Your task to perform on an android device: turn on priority inbox in the gmail app Image 0: 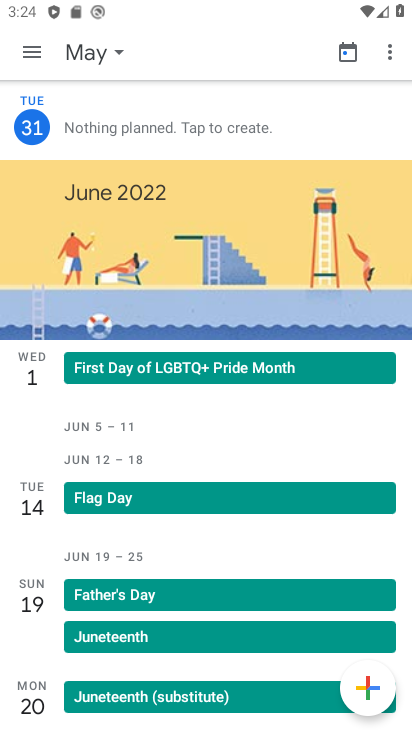
Step 0: press home button
Your task to perform on an android device: turn on priority inbox in the gmail app Image 1: 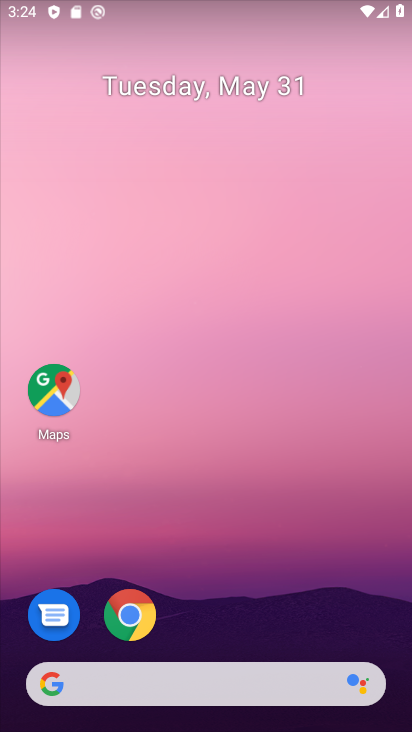
Step 1: drag from (247, 624) to (212, 74)
Your task to perform on an android device: turn on priority inbox in the gmail app Image 2: 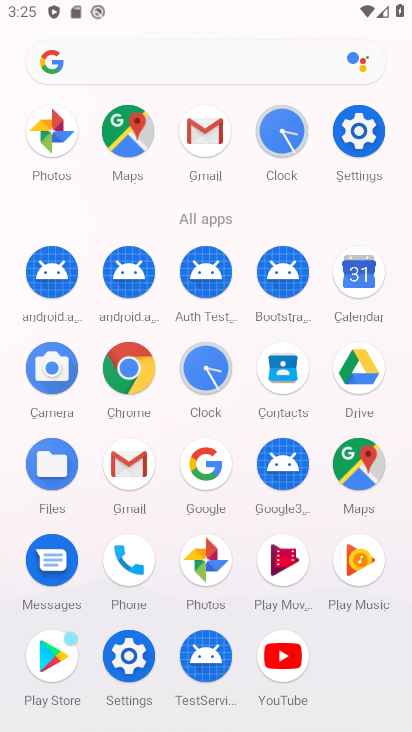
Step 2: click (198, 141)
Your task to perform on an android device: turn on priority inbox in the gmail app Image 3: 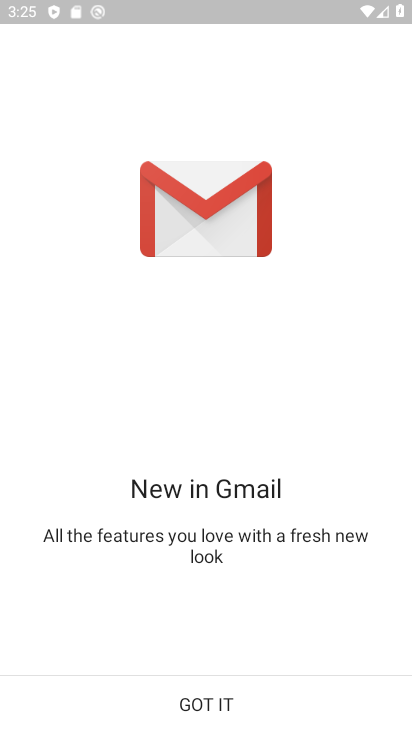
Step 3: click (222, 696)
Your task to perform on an android device: turn on priority inbox in the gmail app Image 4: 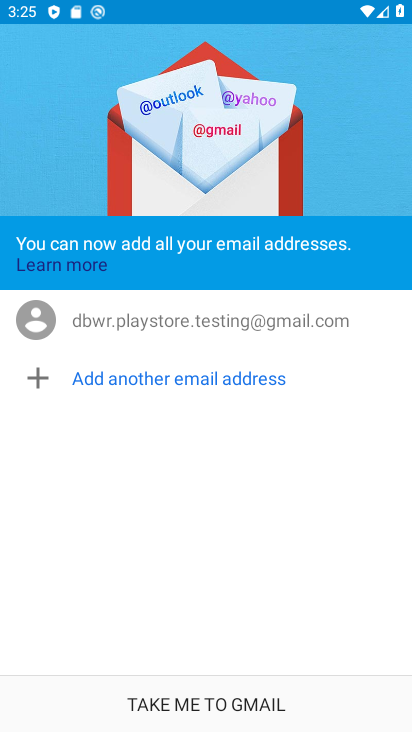
Step 4: click (222, 696)
Your task to perform on an android device: turn on priority inbox in the gmail app Image 5: 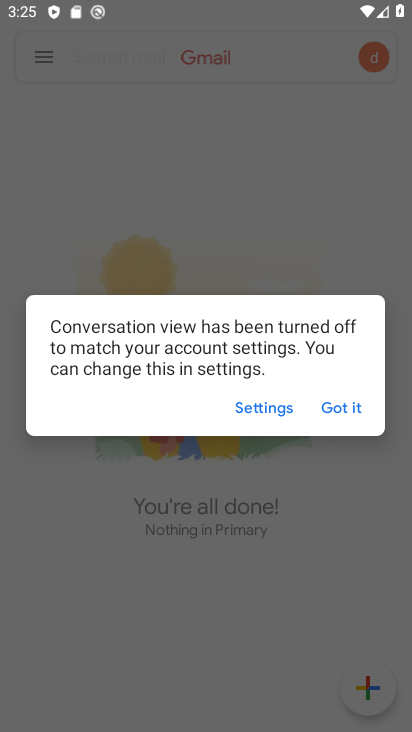
Step 5: click (345, 418)
Your task to perform on an android device: turn on priority inbox in the gmail app Image 6: 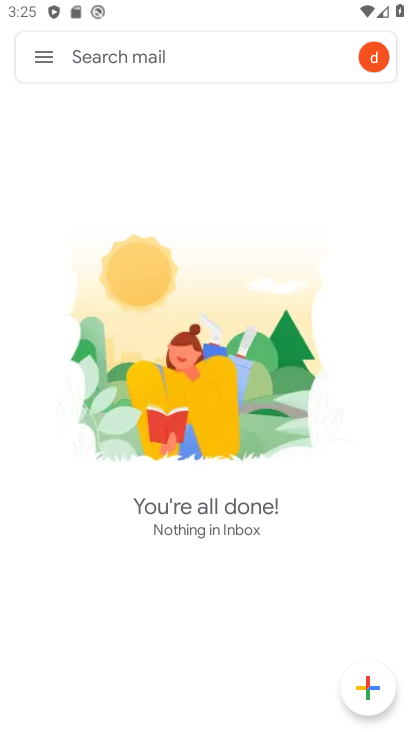
Step 6: click (41, 55)
Your task to perform on an android device: turn on priority inbox in the gmail app Image 7: 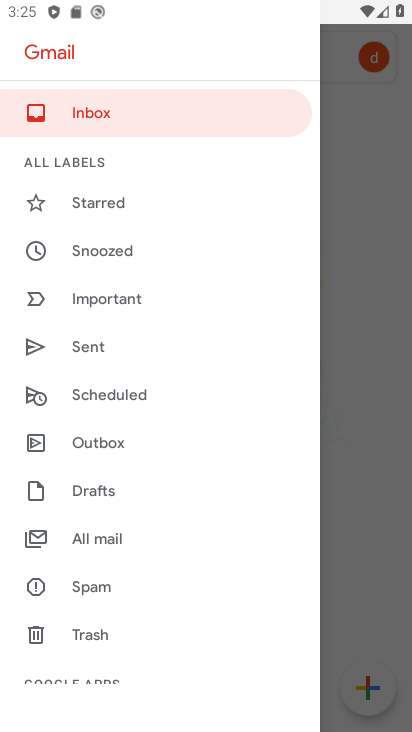
Step 7: drag from (142, 628) to (91, 125)
Your task to perform on an android device: turn on priority inbox in the gmail app Image 8: 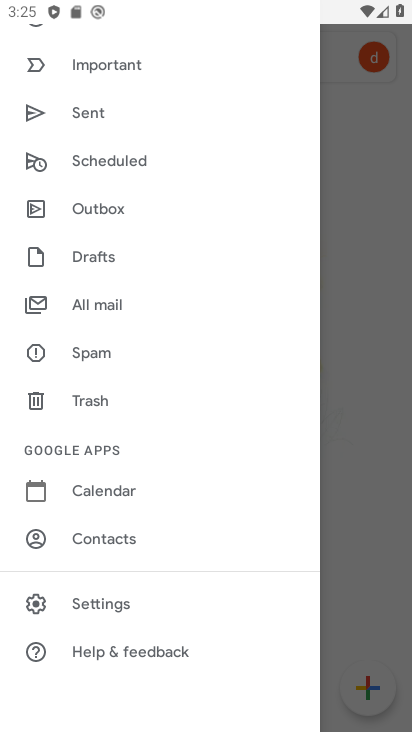
Step 8: click (95, 596)
Your task to perform on an android device: turn on priority inbox in the gmail app Image 9: 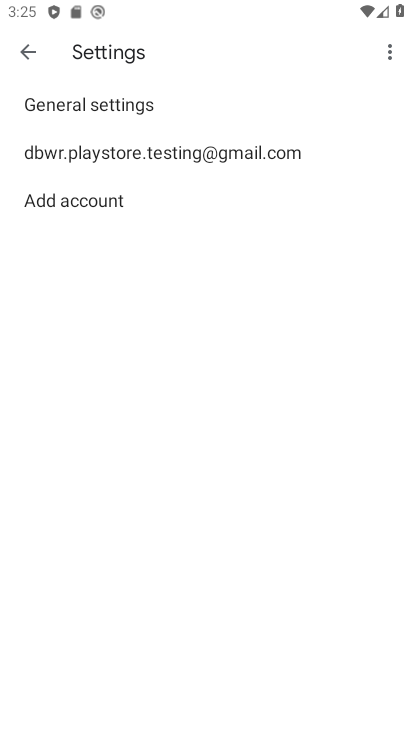
Step 9: click (208, 156)
Your task to perform on an android device: turn on priority inbox in the gmail app Image 10: 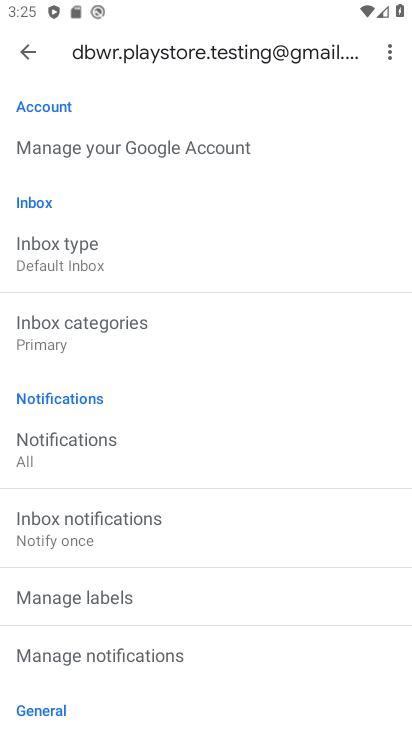
Step 10: click (149, 262)
Your task to perform on an android device: turn on priority inbox in the gmail app Image 11: 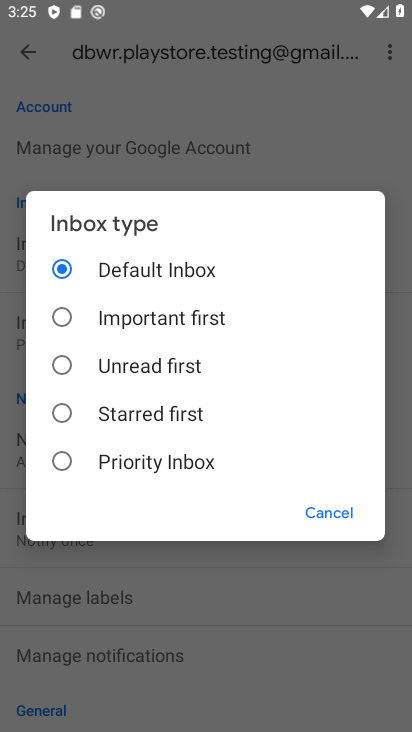
Step 11: click (183, 456)
Your task to perform on an android device: turn on priority inbox in the gmail app Image 12: 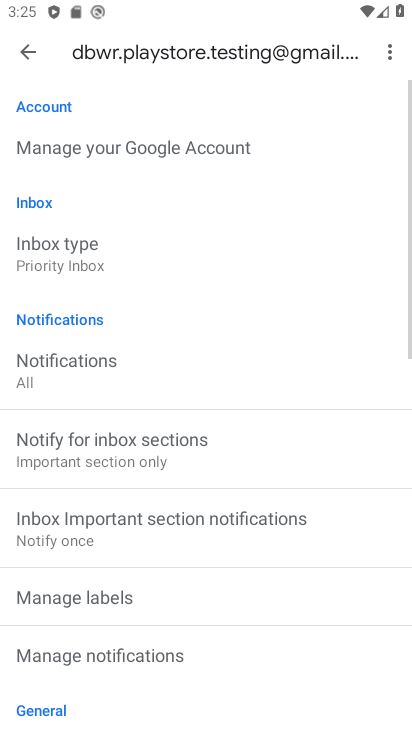
Step 12: task complete